Your task to perform on an android device: Open settings Image 0: 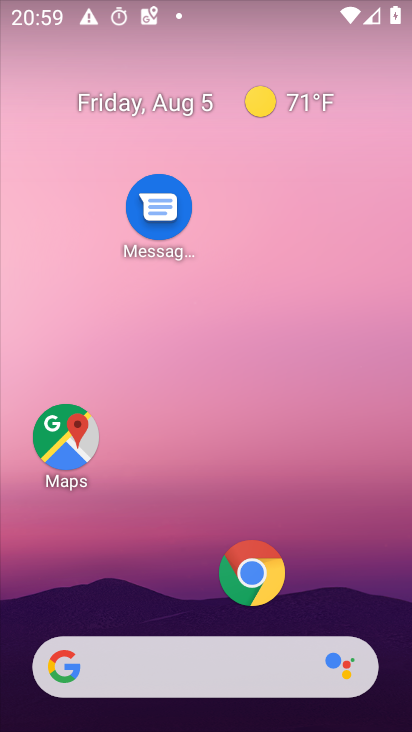
Step 0: press home button
Your task to perform on an android device: Open settings Image 1: 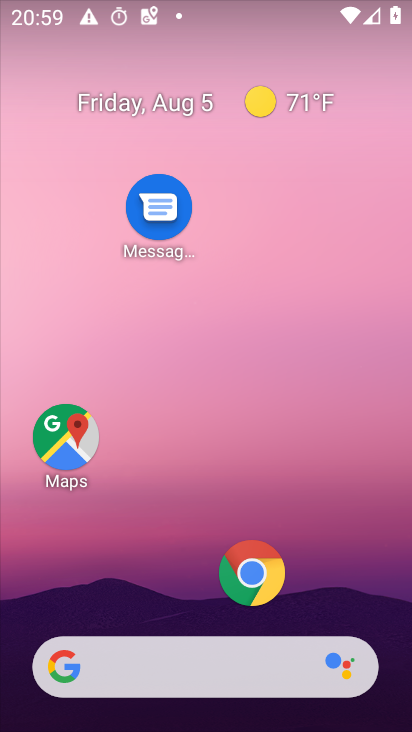
Step 1: drag from (197, 605) to (269, 59)
Your task to perform on an android device: Open settings Image 2: 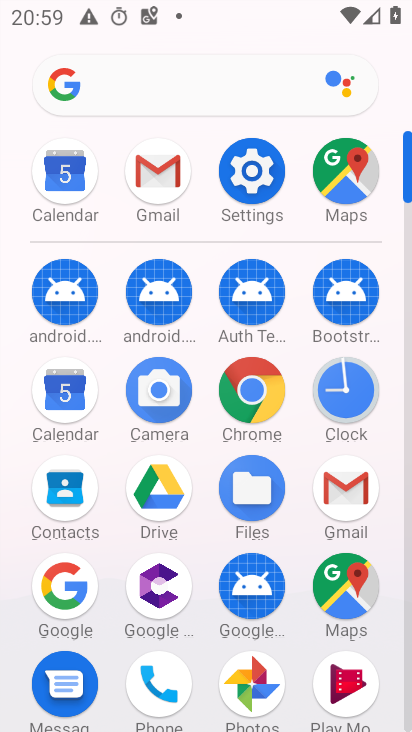
Step 2: click (248, 154)
Your task to perform on an android device: Open settings Image 3: 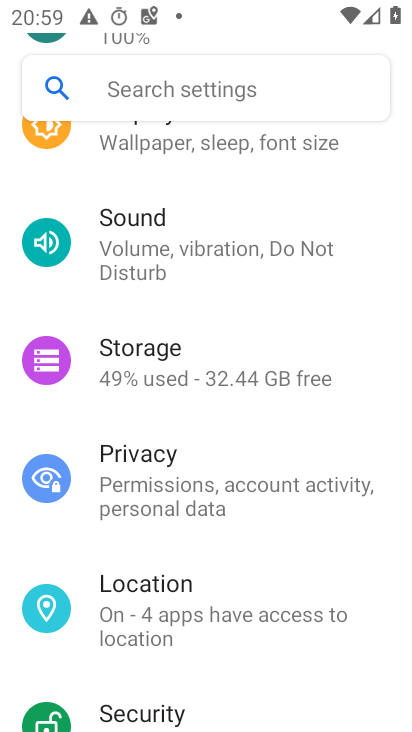
Step 3: task complete